Your task to perform on an android device: add a contact Image 0: 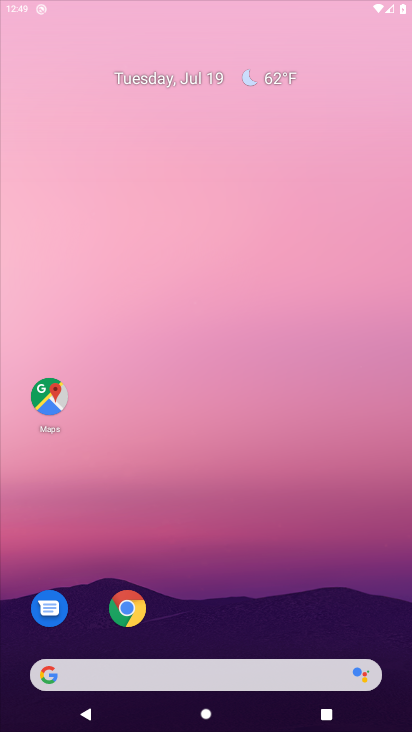
Step 0: press home button
Your task to perform on an android device: add a contact Image 1: 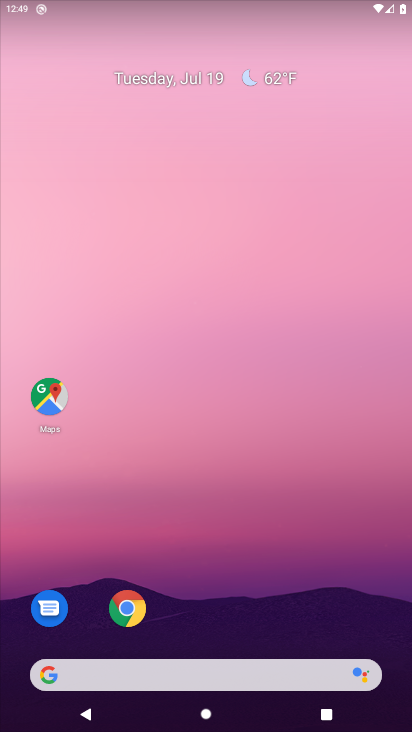
Step 1: drag from (219, 635) to (251, 2)
Your task to perform on an android device: add a contact Image 2: 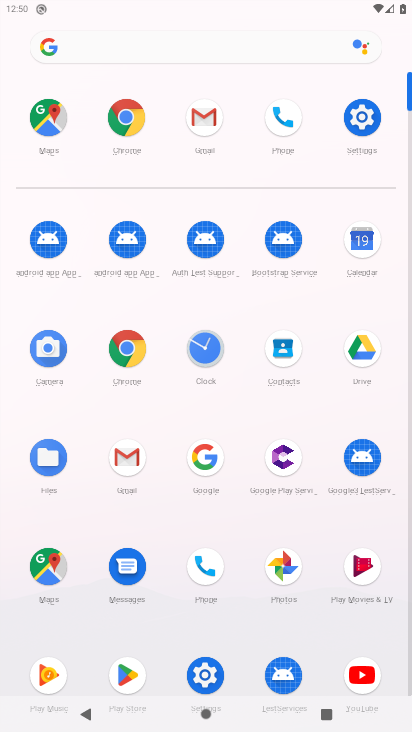
Step 2: click (277, 341)
Your task to perform on an android device: add a contact Image 3: 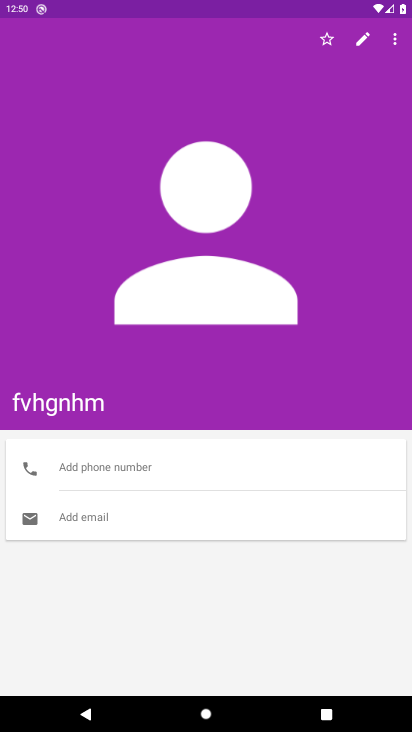
Step 3: press back button
Your task to perform on an android device: add a contact Image 4: 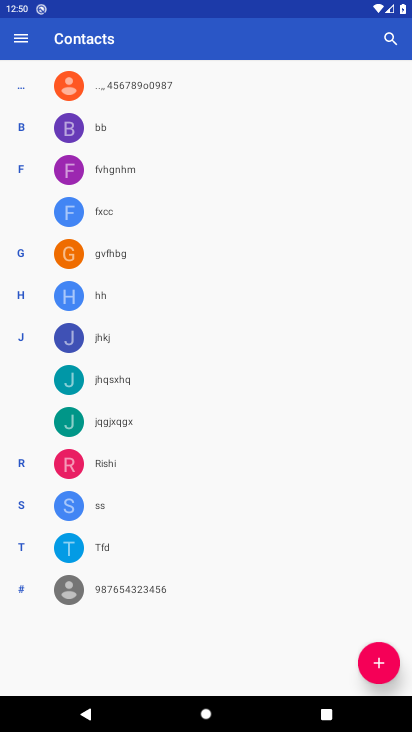
Step 4: click (381, 658)
Your task to perform on an android device: add a contact Image 5: 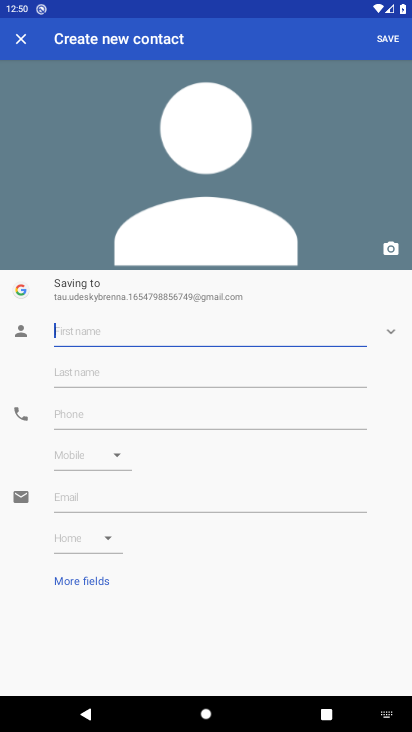
Step 5: type "aprnkt"
Your task to perform on an android device: add a contact Image 6: 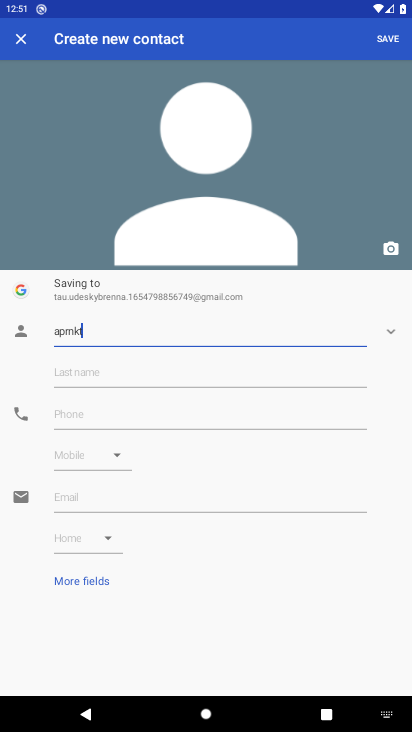
Step 6: click (381, 42)
Your task to perform on an android device: add a contact Image 7: 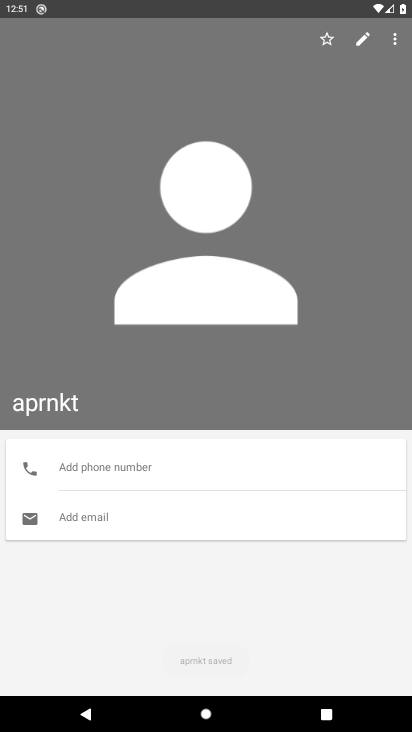
Step 7: task complete